Your task to perform on an android device: turn off wifi Image 0: 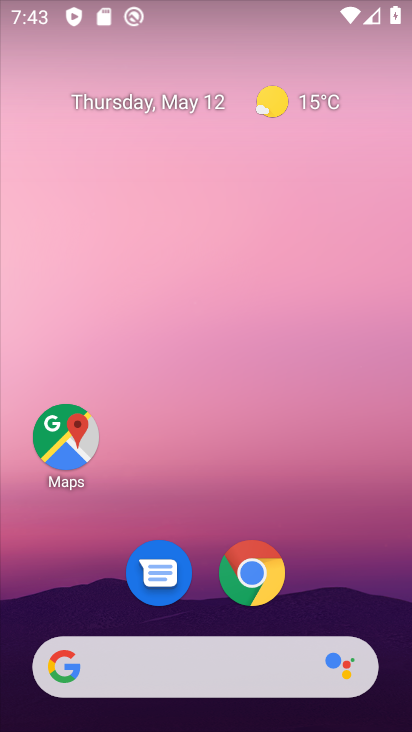
Step 0: drag from (287, 461) to (267, 33)
Your task to perform on an android device: turn off wifi Image 1: 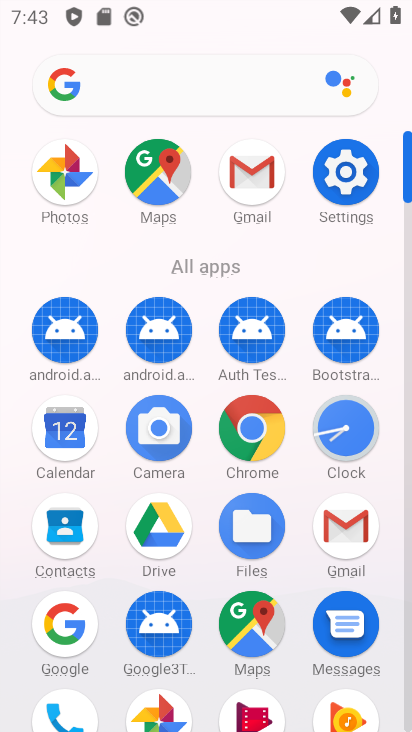
Step 1: click (338, 161)
Your task to perform on an android device: turn off wifi Image 2: 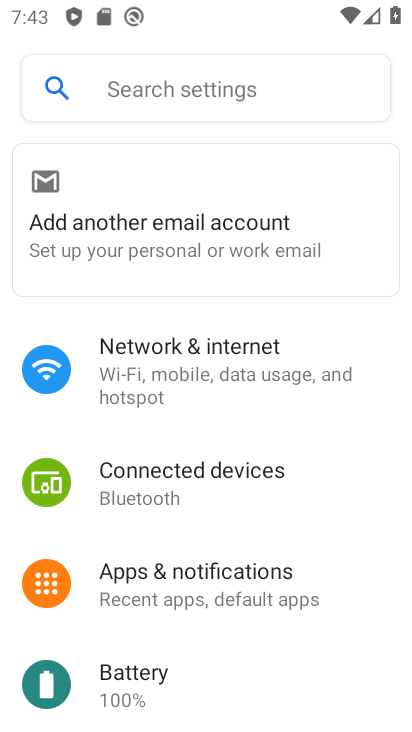
Step 2: click (235, 362)
Your task to perform on an android device: turn off wifi Image 3: 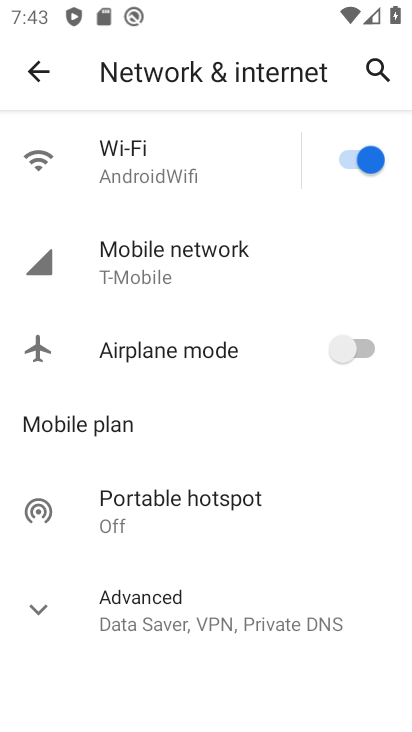
Step 3: click (350, 142)
Your task to perform on an android device: turn off wifi Image 4: 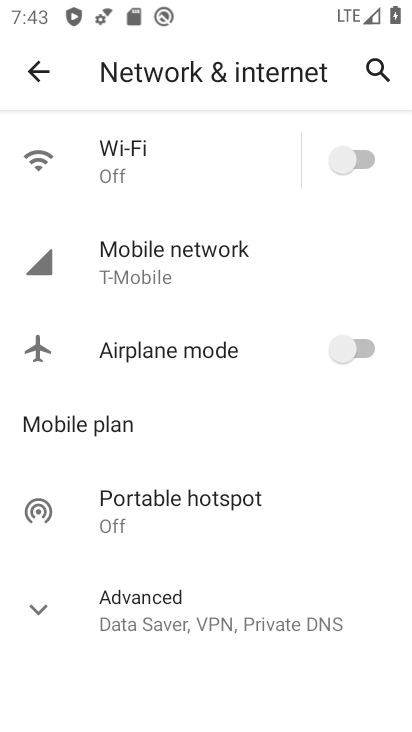
Step 4: task complete